Your task to perform on an android device: Go to CNN.com Image 0: 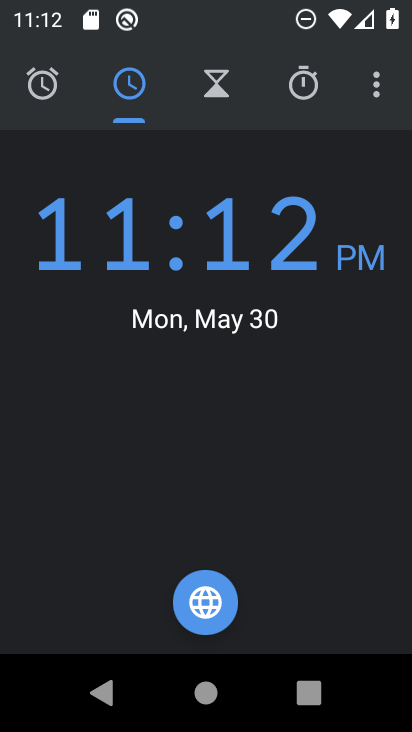
Step 0: press home button
Your task to perform on an android device: Go to CNN.com Image 1: 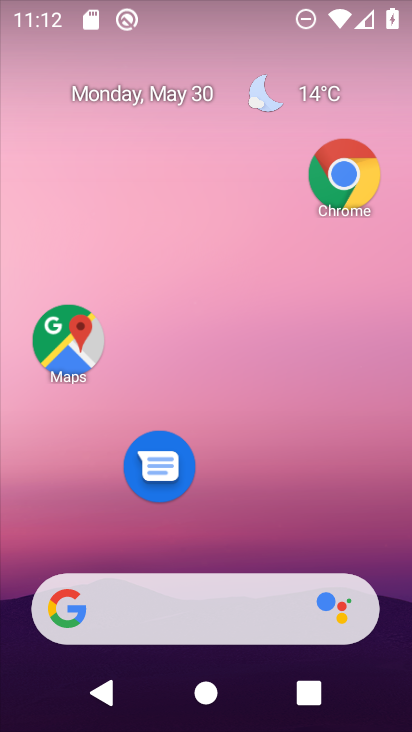
Step 1: click (344, 165)
Your task to perform on an android device: Go to CNN.com Image 2: 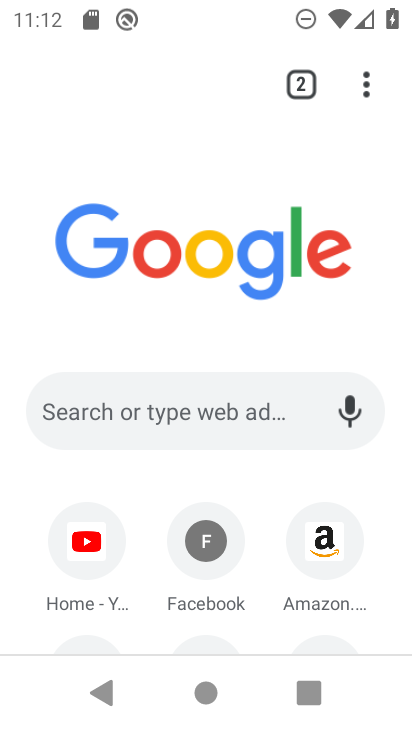
Step 2: drag from (264, 579) to (264, 123)
Your task to perform on an android device: Go to CNN.com Image 3: 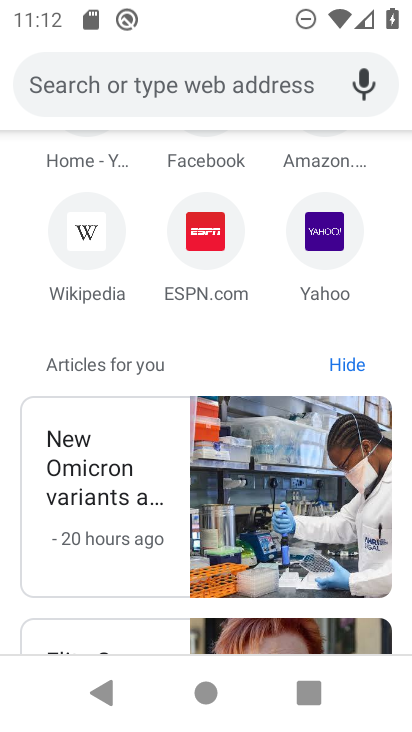
Step 3: click (222, 73)
Your task to perform on an android device: Go to CNN.com Image 4: 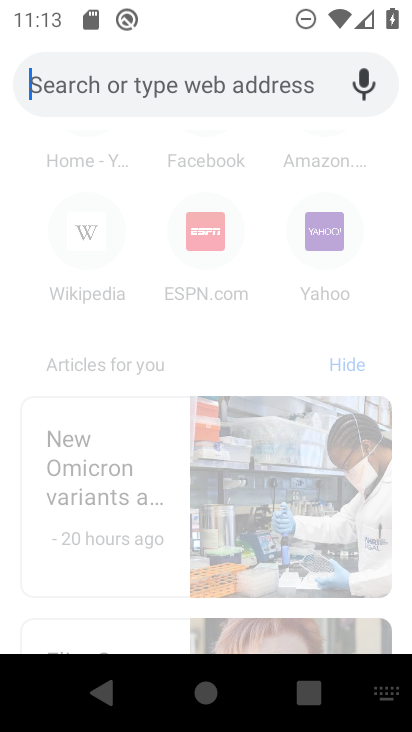
Step 4: type "CNN.com"
Your task to perform on an android device: Go to CNN.com Image 5: 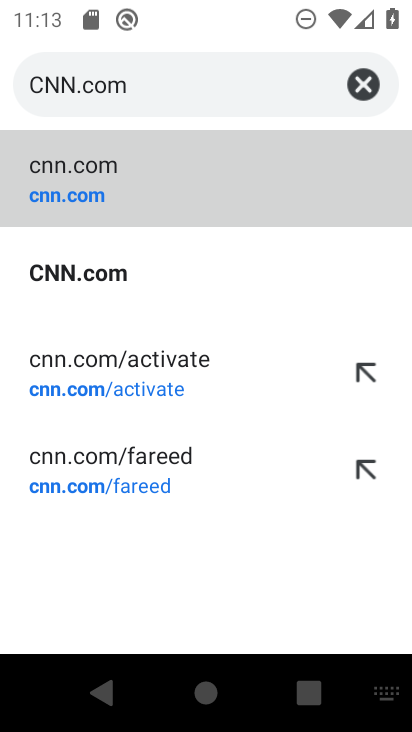
Step 5: click (53, 176)
Your task to perform on an android device: Go to CNN.com Image 6: 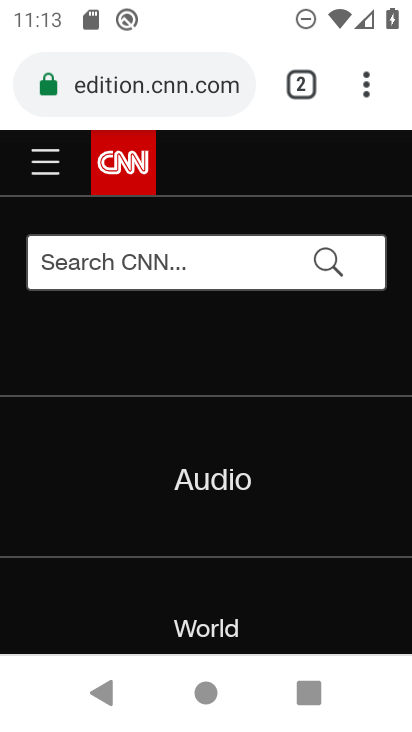
Step 6: task complete